Your task to perform on an android device: open a new tab in the chrome app Image 0: 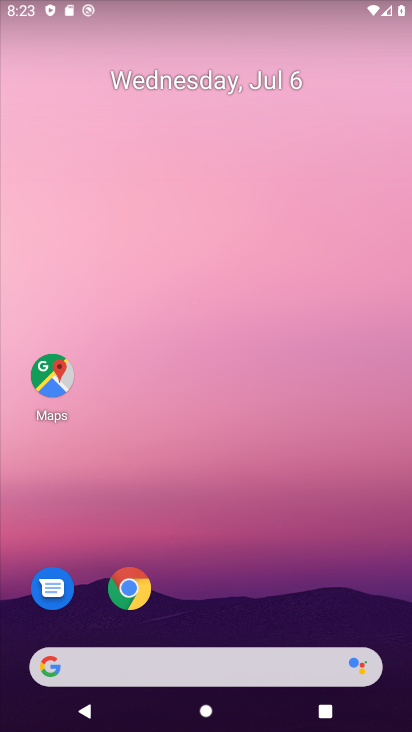
Step 0: drag from (255, 601) to (150, 69)
Your task to perform on an android device: open a new tab in the chrome app Image 1: 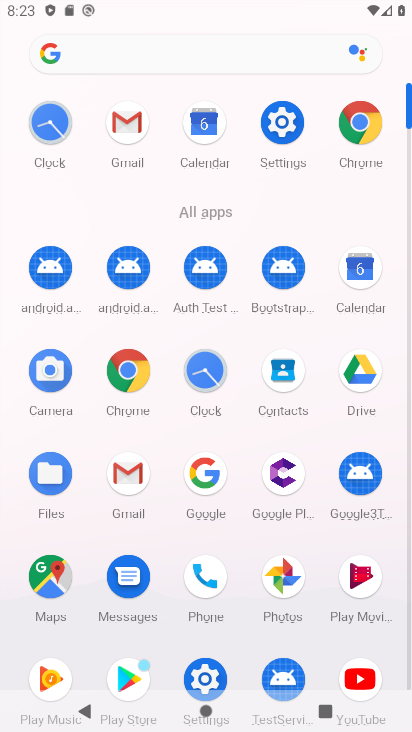
Step 1: click (358, 130)
Your task to perform on an android device: open a new tab in the chrome app Image 2: 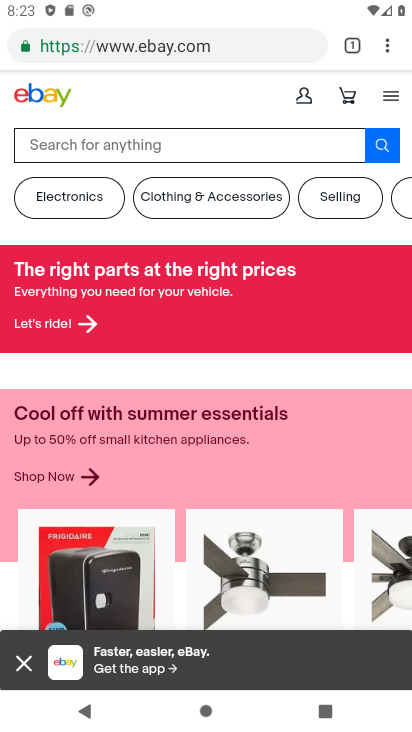
Step 2: click (388, 52)
Your task to perform on an android device: open a new tab in the chrome app Image 3: 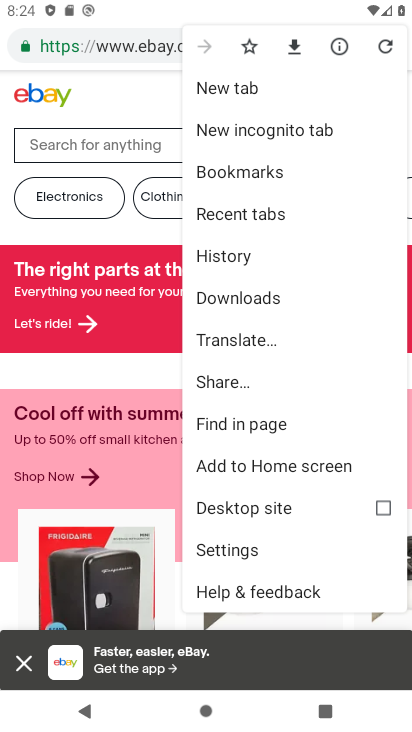
Step 3: click (348, 78)
Your task to perform on an android device: open a new tab in the chrome app Image 4: 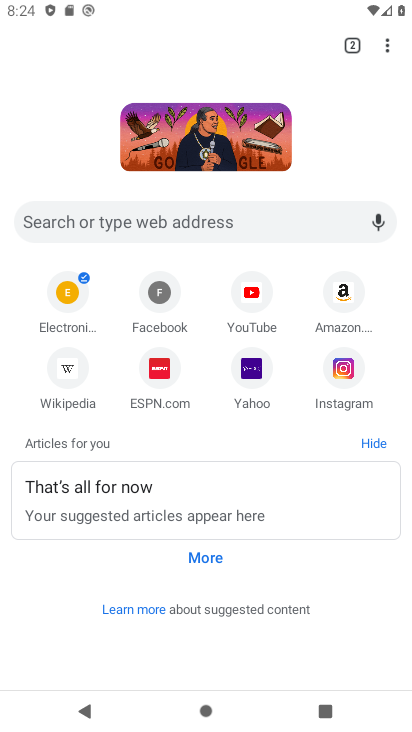
Step 4: task complete